Your task to perform on an android device: search for starred emails in the gmail app Image 0: 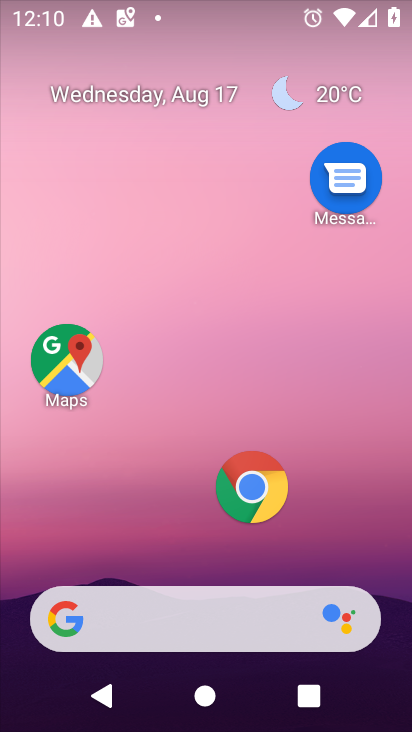
Step 0: drag from (188, 548) to (264, 1)
Your task to perform on an android device: search for starred emails in the gmail app Image 1: 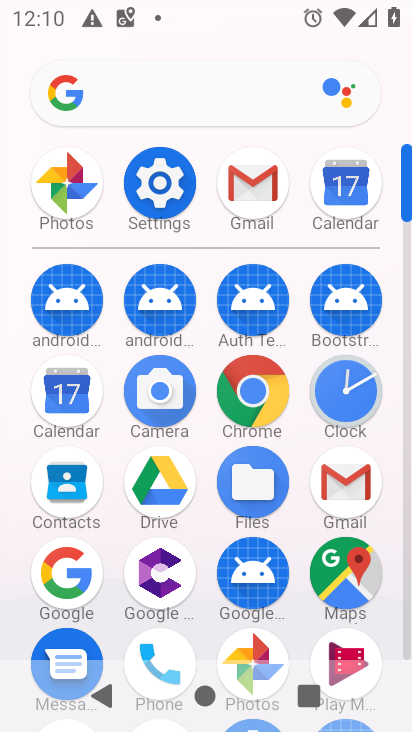
Step 1: click (254, 210)
Your task to perform on an android device: search for starred emails in the gmail app Image 2: 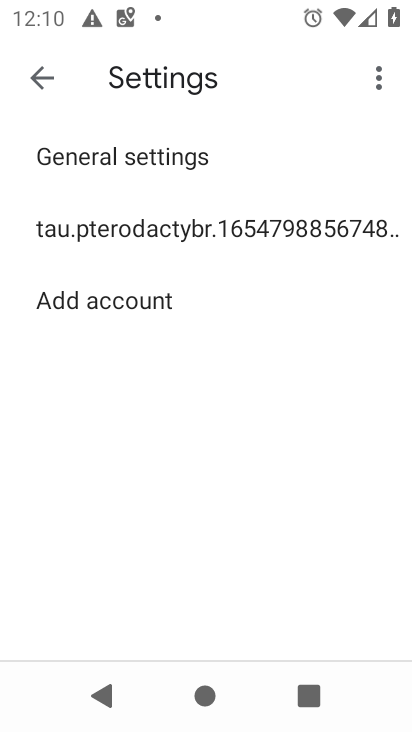
Step 2: press back button
Your task to perform on an android device: search for starred emails in the gmail app Image 3: 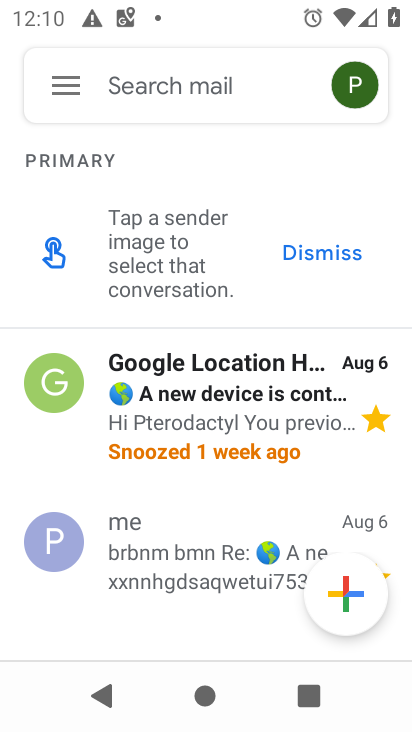
Step 3: click (64, 75)
Your task to perform on an android device: search for starred emails in the gmail app Image 4: 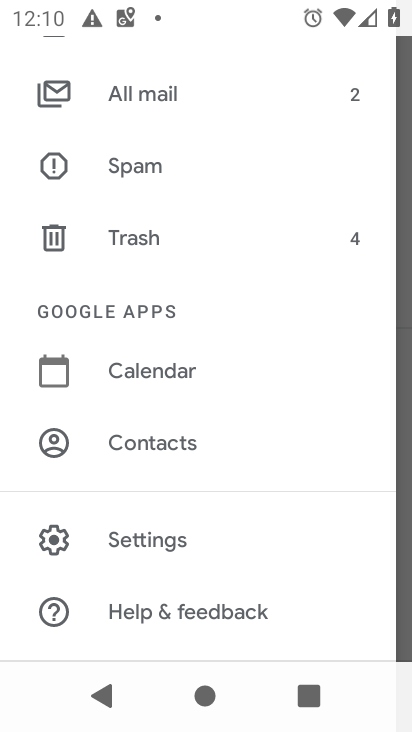
Step 4: drag from (215, 250) to (217, 655)
Your task to perform on an android device: search for starred emails in the gmail app Image 5: 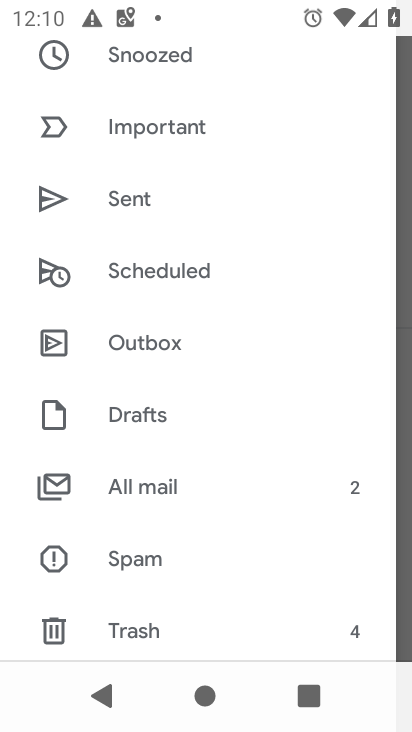
Step 5: drag from (154, 89) to (156, 574)
Your task to perform on an android device: search for starred emails in the gmail app Image 6: 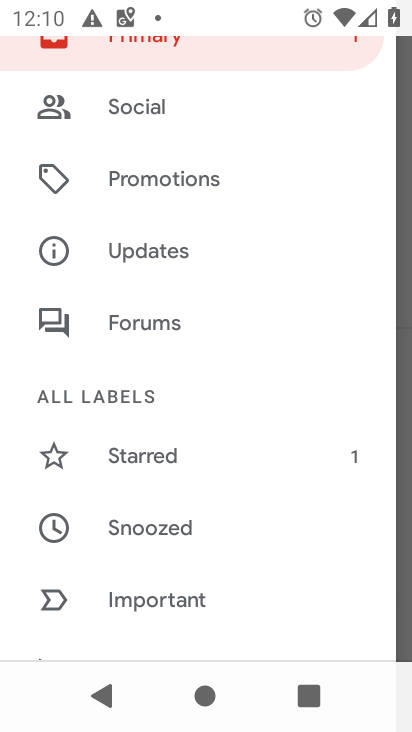
Step 6: click (155, 454)
Your task to perform on an android device: search for starred emails in the gmail app Image 7: 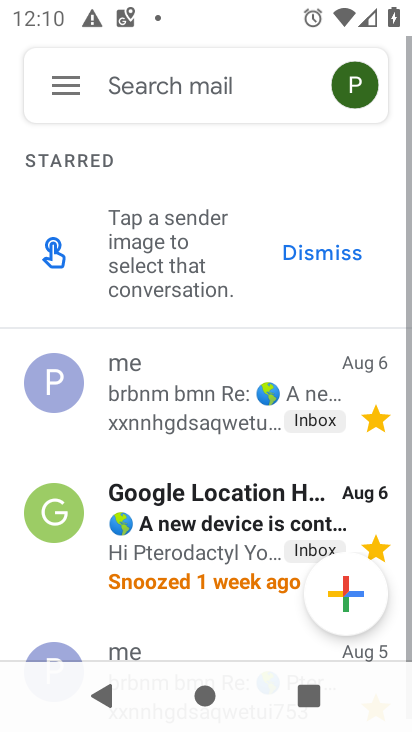
Step 7: task complete